Your task to perform on an android device: What's the weather today? Image 0: 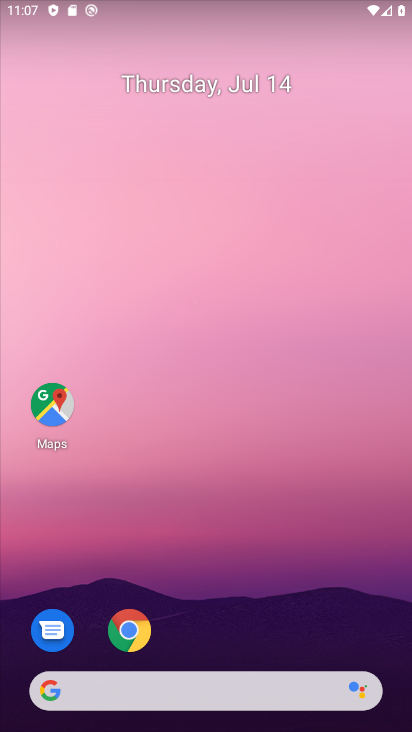
Step 0: drag from (182, 556) to (204, 145)
Your task to perform on an android device: What's the weather today? Image 1: 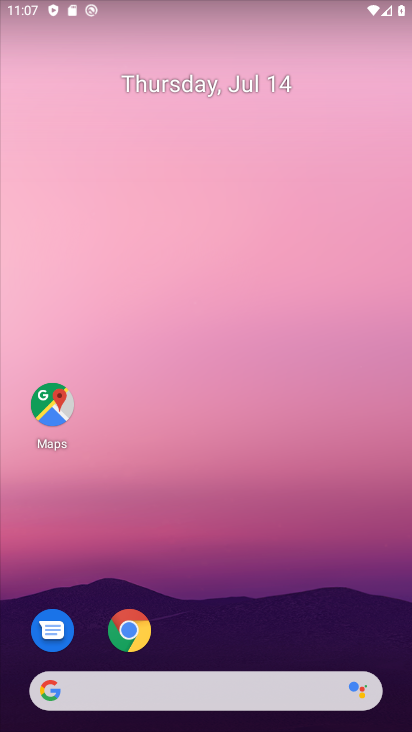
Step 1: drag from (292, 566) to (247, 194)
Your task to perform on an android device: What's the weather today? Image 2: 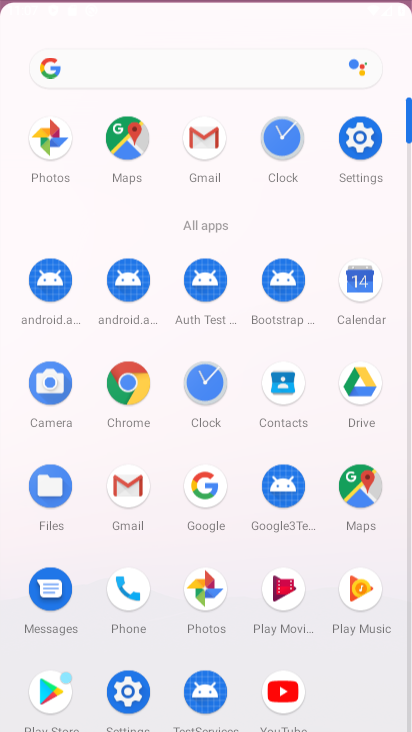
Step 2: drag from (219, 679) to (112, 48)
Your task to perform on an android device: What's the weather today? Image 3: 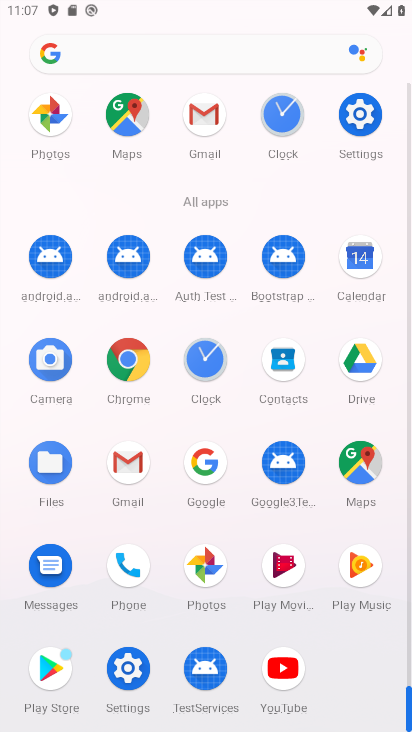
Step 3: click (130, 351)
Your task to perform on an android device: What's the weather today? Image 4: 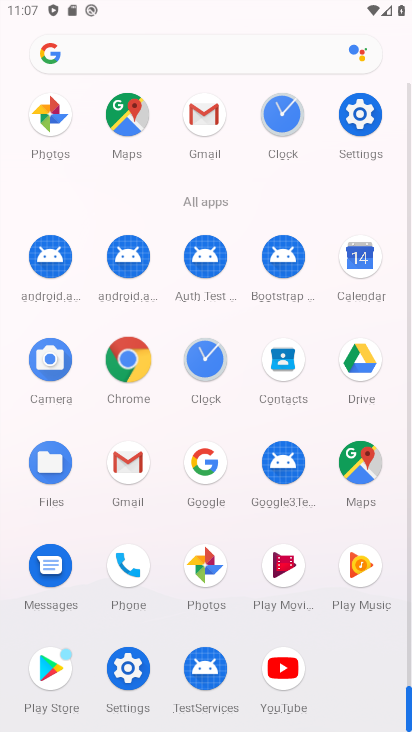
Step 4: click (131, 352)
Your task to perform on an android device: What's the weather today? Image 5: 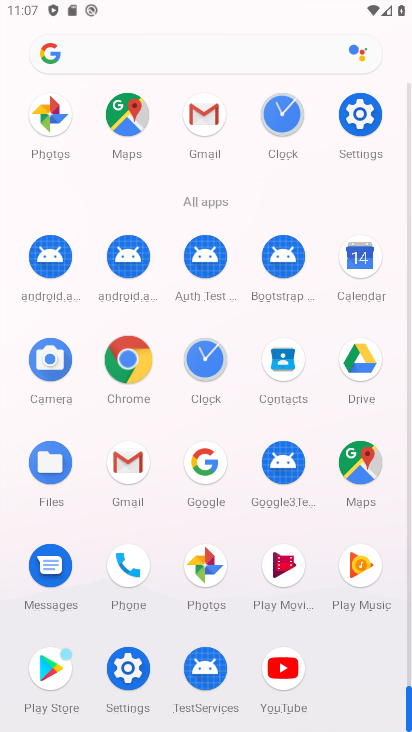
Step 5: click (131, 352)
Your task to perform on an android device: What's the weather today? Image 6: 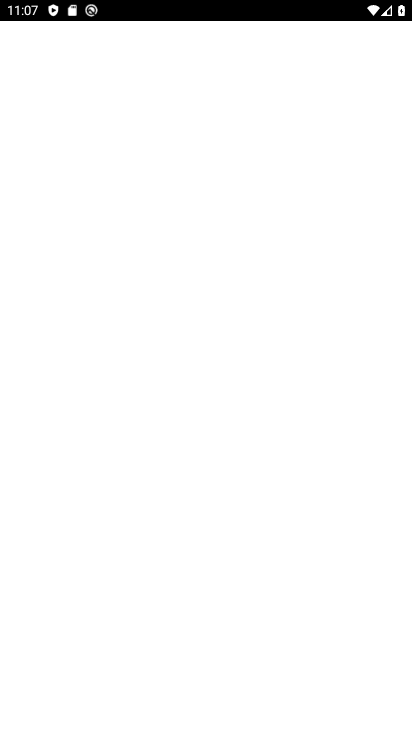
Step 6: click (127, 355)
Your task to perform on an android device: What's the weather today? Image 7: 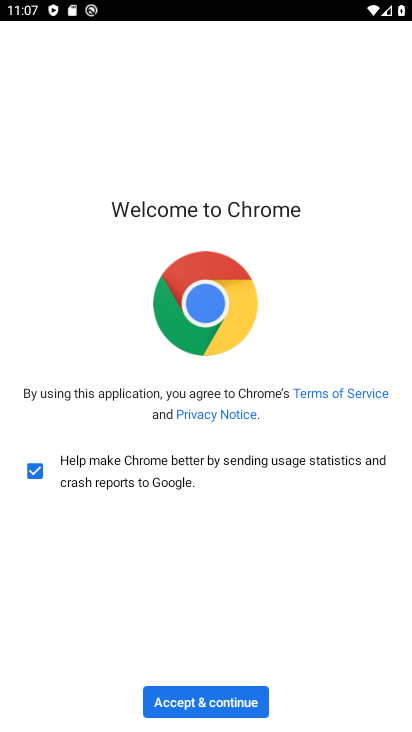
Step 7: click (220, 712)
Your task to perform on an android device: What's the weather today? Image 8: 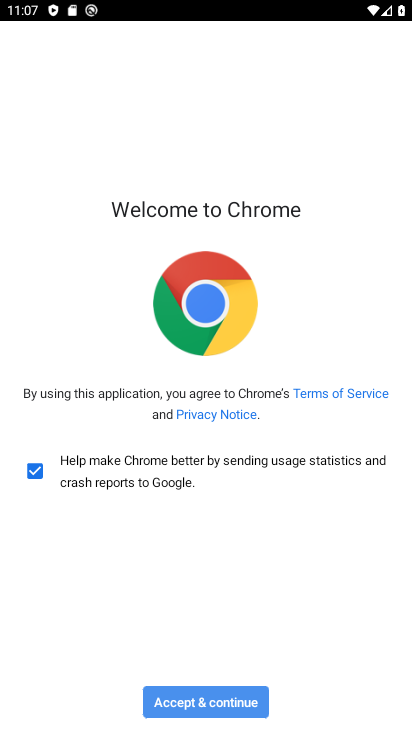
Step 8: click (221, 695)
Your task to perform on an android device: What's the weather today? Image 9: 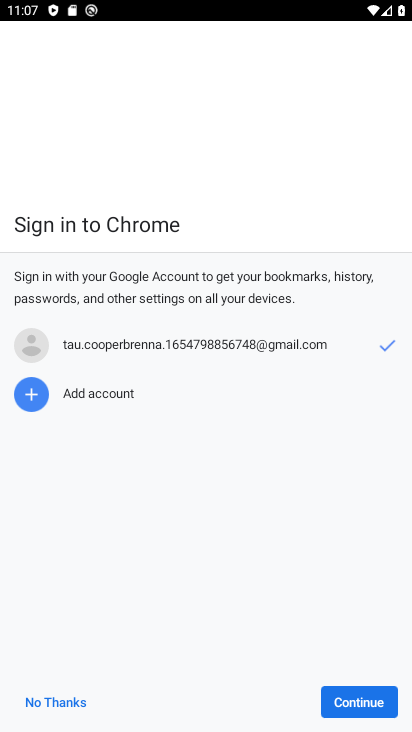
Step 9: click (221, 695)
Your task to perform on an android device: What's the weather today? Image 10: 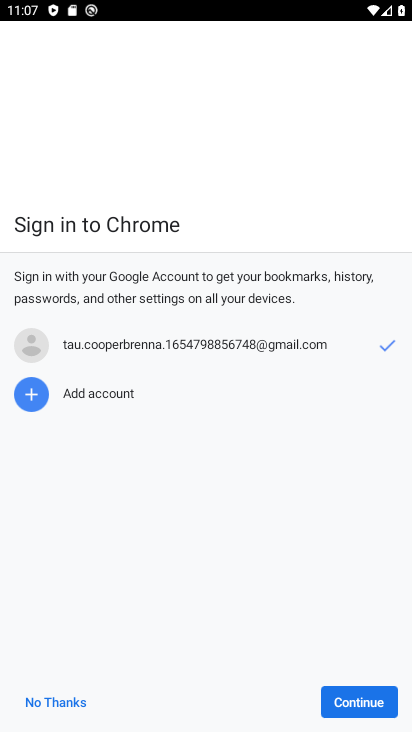
Step 10: click (222, 695)
Your task to perform on an android device: What's the weather today? Image 11: 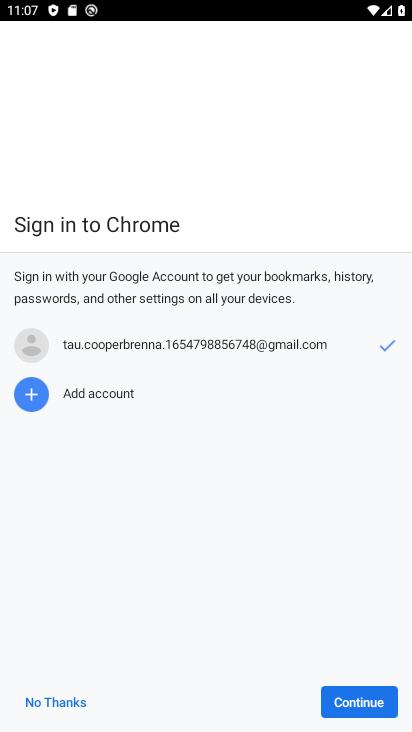
Step 11: click (358, 709)
Your task to perform on an android device: What's the weather today? Image 12: 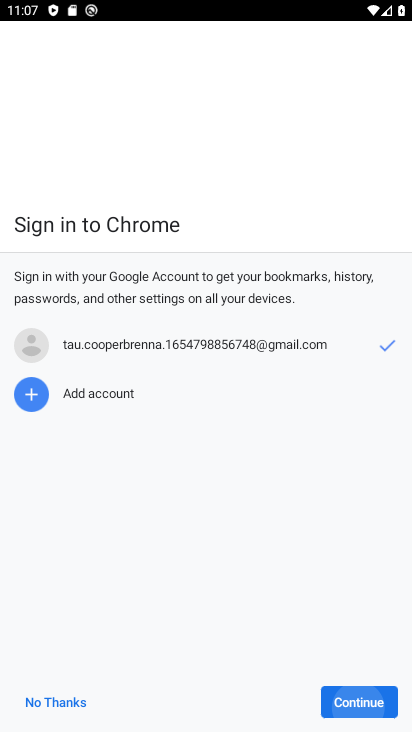
Step 12: click (358, 708)
Your task to perform on an android device: What's the weather today? Image 13: 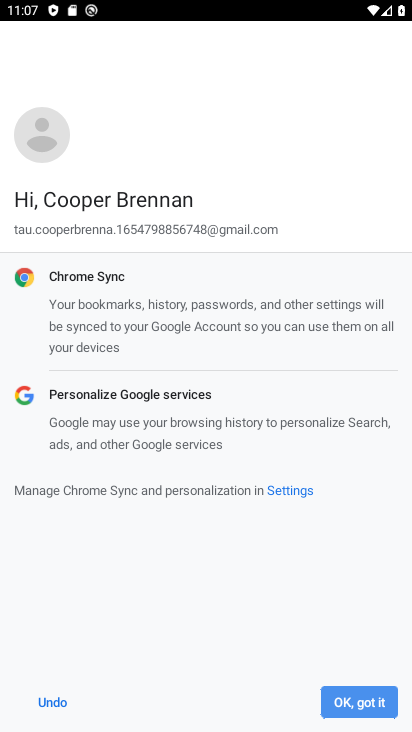
Step 13: click (374, 704)
Your task to perform on an android device: What's the weather today? Image 14: 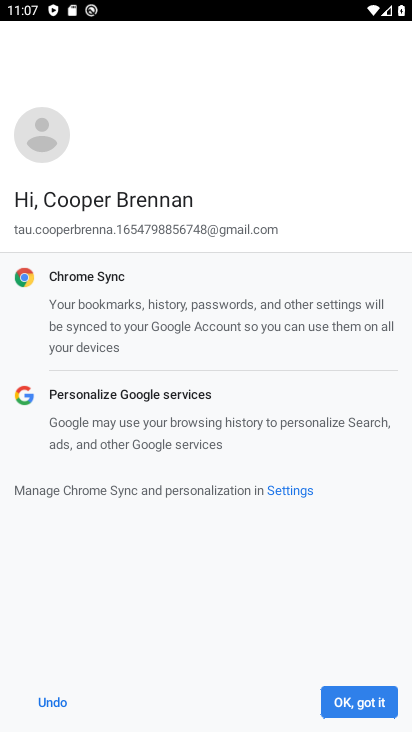
Step 14: click (374, 704)
Your task to perform on an android device: What's the weather today? Image 15: 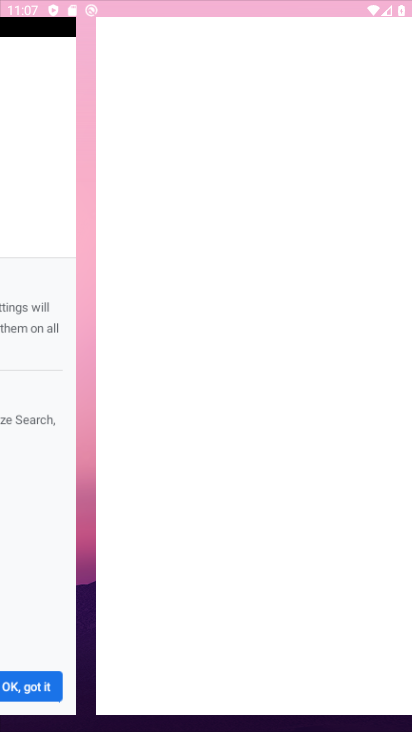
Step 15: click (374, 704)
Your task to perform on an android device: What's the weather today? Image 16: 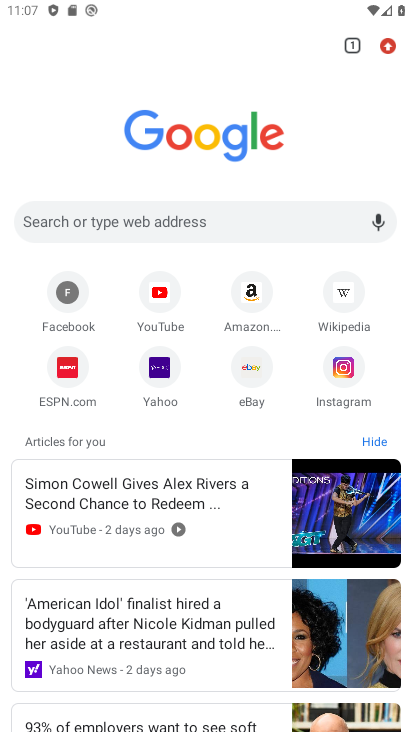
Step 16: click (81, 219)
Your task to perform on an android device: What's the weather today? Image 17: 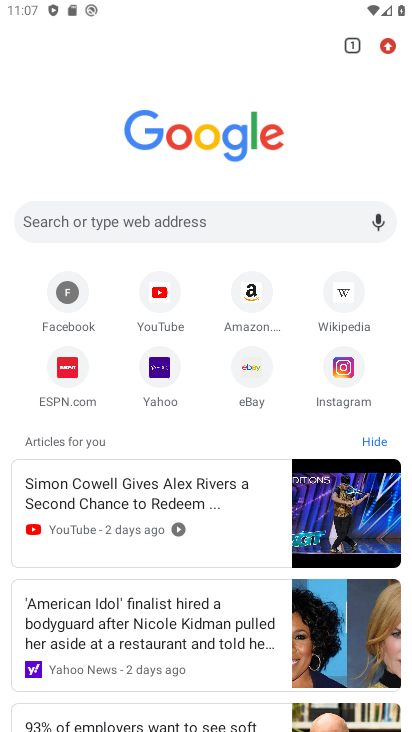
Step 17: click (81, 219)
Your task to perform on an android device: What's the weather today? Image 18: 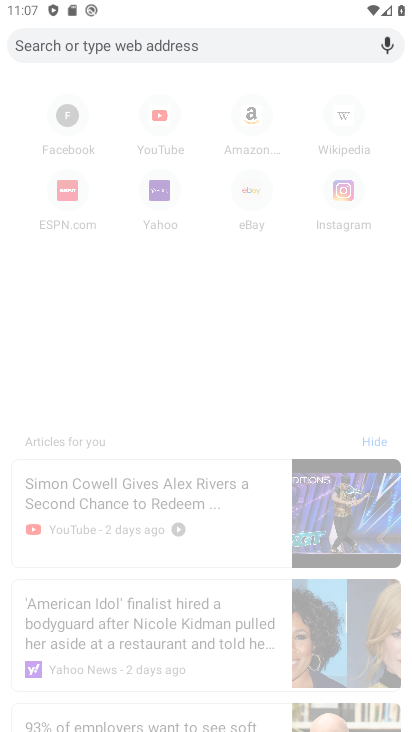
Step 18: click (85, 220)
Your task to perform on an android device: What's the weather today? Image 19: 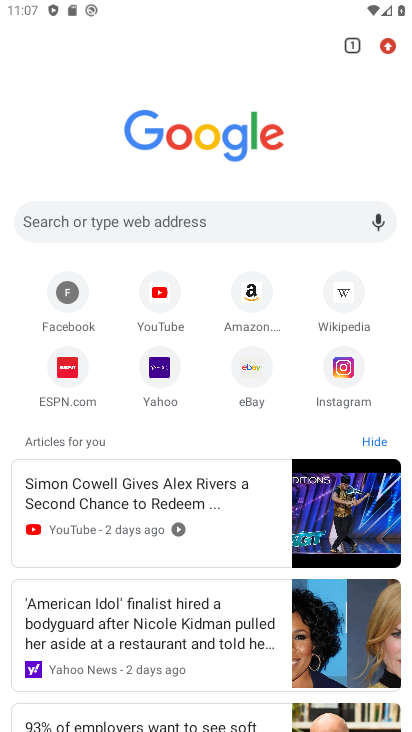
Step 19: type "weather today"
Your task to perform on an android device: What's the weather today? Image 20: 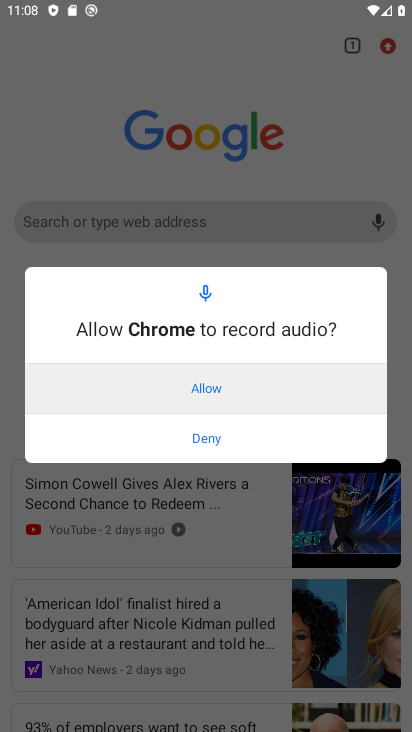
Step 20: click (201, 380)
Your task to perform on an android device: What's the weather today? Image 21: 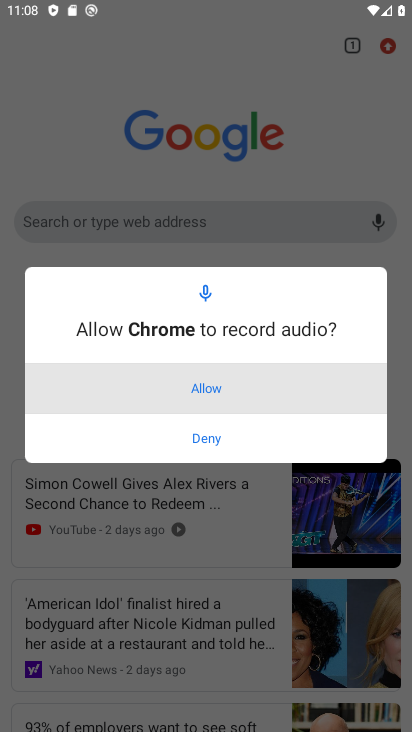
Step 21: click (201, 380)
Your task to perform on an android device: What's the weather today? Image 22: 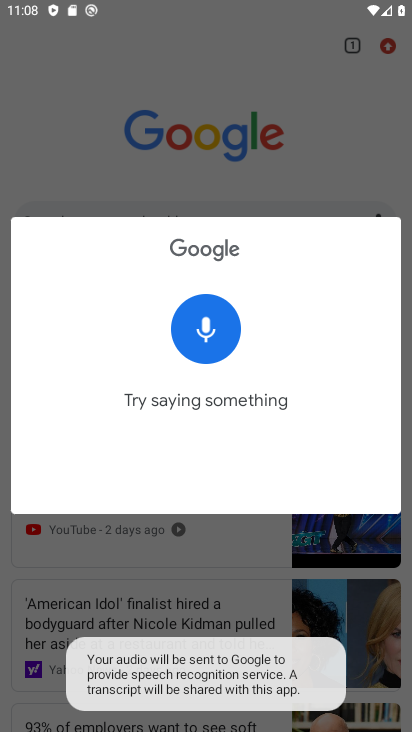
Step 22: task complete